Your task to perform on an android device: check google app version Image 0: 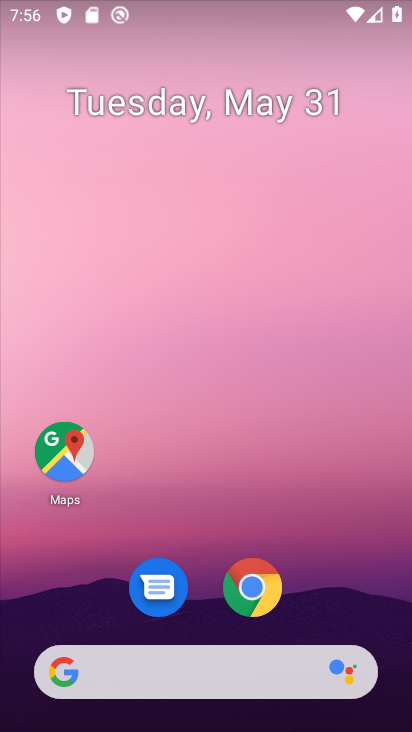
Step 0: click (195, 677)
Your task to perform on an android device: check google app version Image 1: 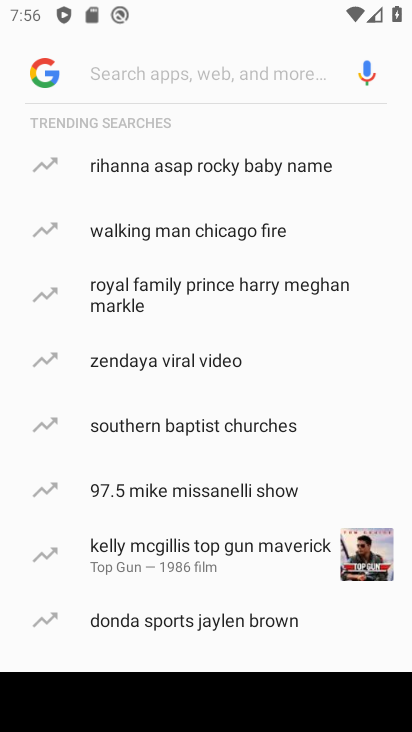
Step 1: click (55, 67)
Your task to perform on an android device: check google app version Image 2: 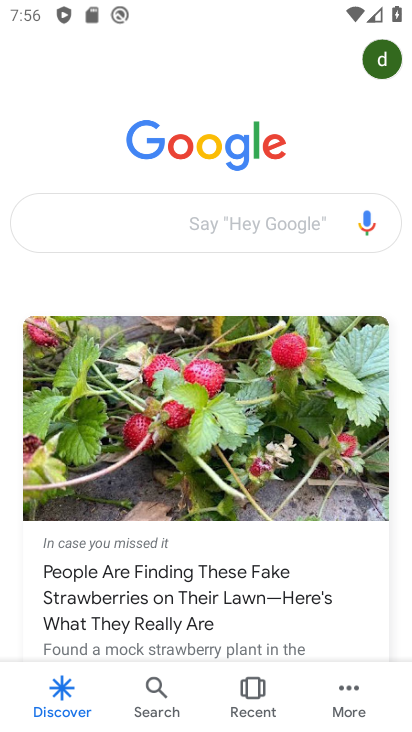
Step 2: click (349, 701)
Your task to perform on an android device: check google app version Image 3: 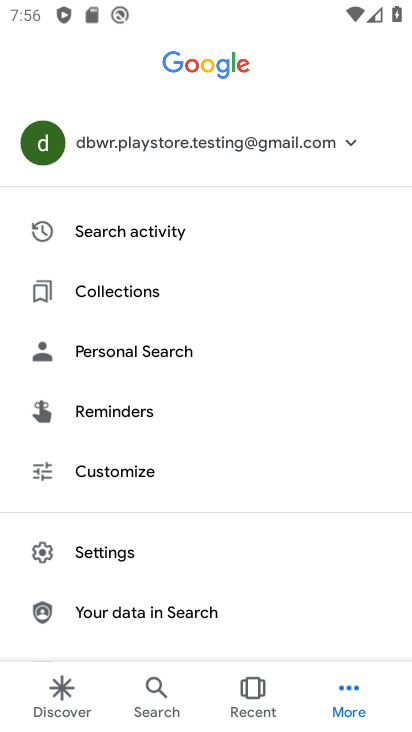
Step 3: click (166, 548)
Your task to perform on an android device: check google app version Image 4: 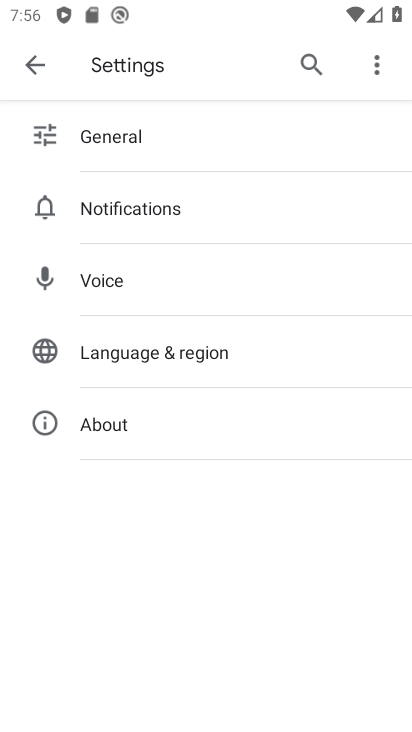
Step 4: click (131, 429)
Your task to perform on an android device: check google app version Image 5: 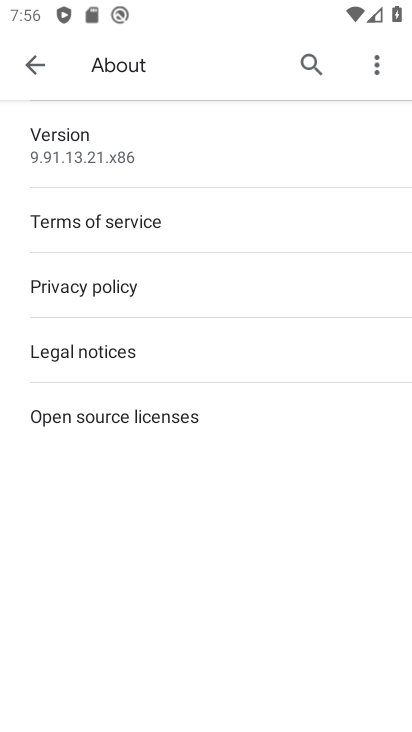
Step 5: task complete